Your task to perform on an android device: Show me recent news Image 0: 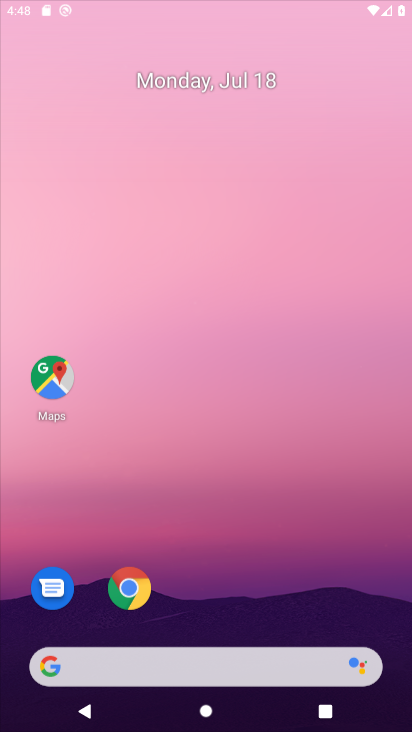
Step 0: press back button
Your task to perform on an android device: Show me recent news Image 1: 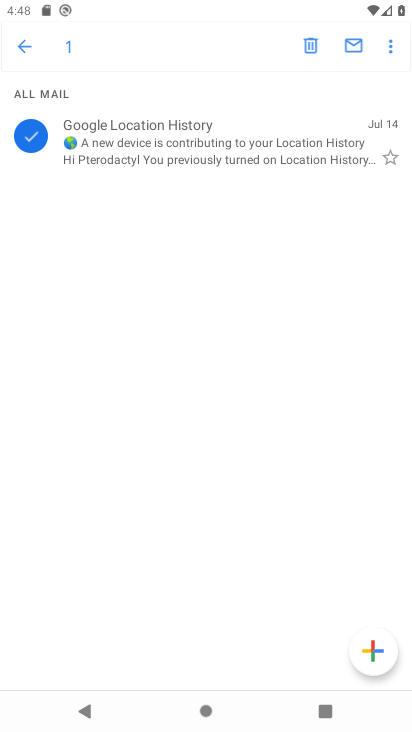
Step 1: press home button
Your task to perform on an android device: Show me recent news Image 2: 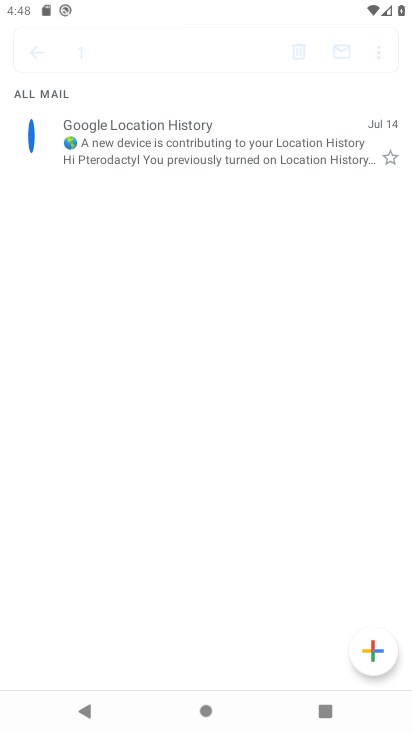
Step 2: drag from (243, 173) to (246, 134)
Your task to perform on an android device: Show me recent news Image 3: 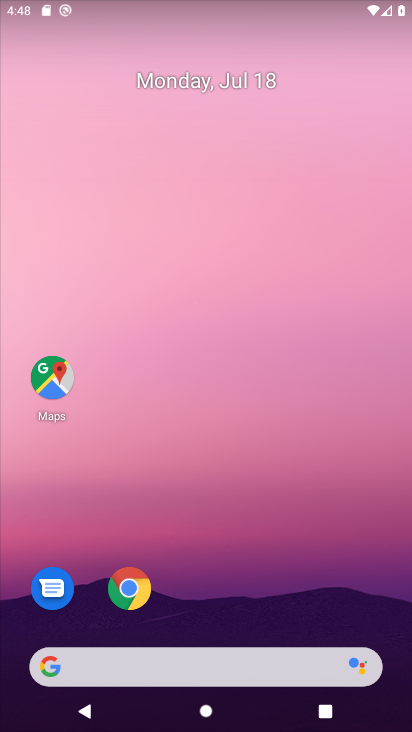
Step 3: drag from (212, 628) to (174, 222)
Your task to perform on an android device: Show me recent news Image 4: 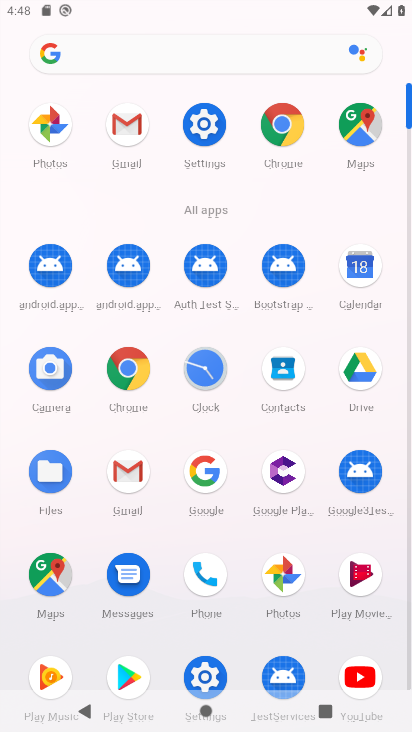
Step 4: click (280, 117)
Your task to perform on an android device: Show me recent news Image 5: 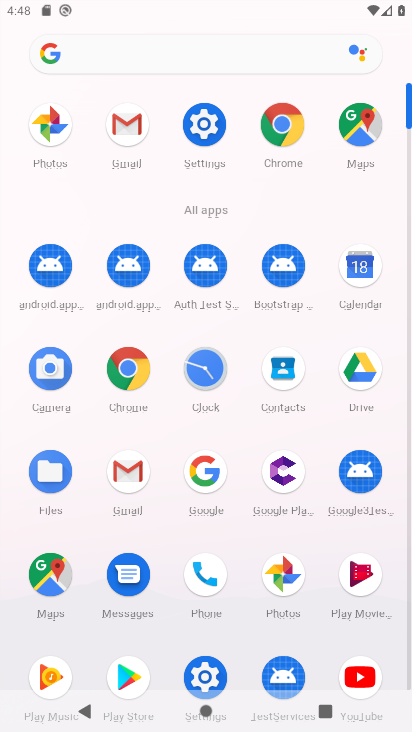
Step 5: click (285, 127)
Your task to perform on an android device: Show me recent news Image 6: 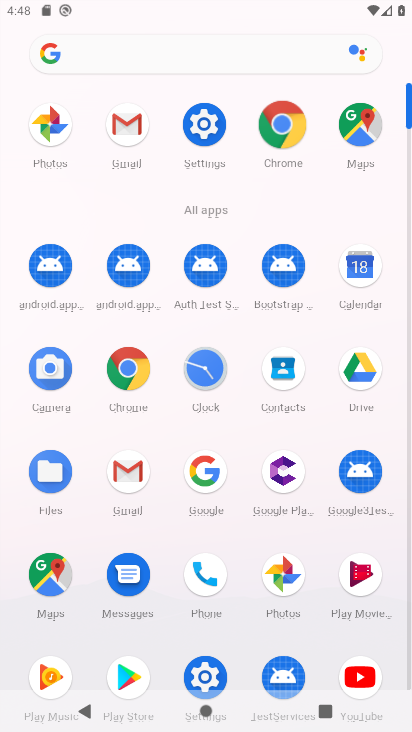
Step 6: click (286, 127)
Your task to perform on an android device: Show me recent news Image 7: 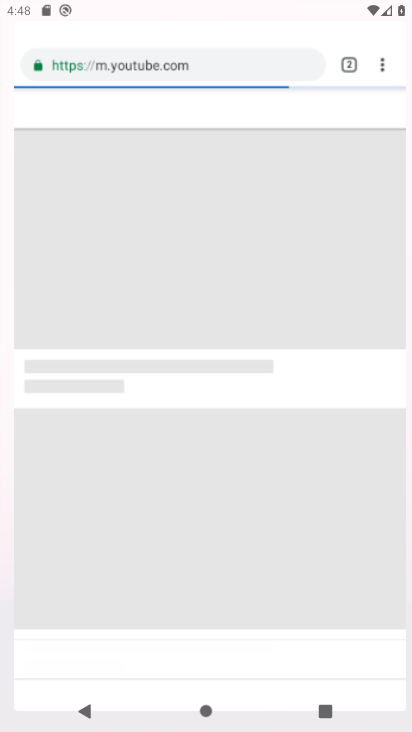
Step 7: click (286, 127)
Your task to perform on an android device: Show me recent news Image 8: 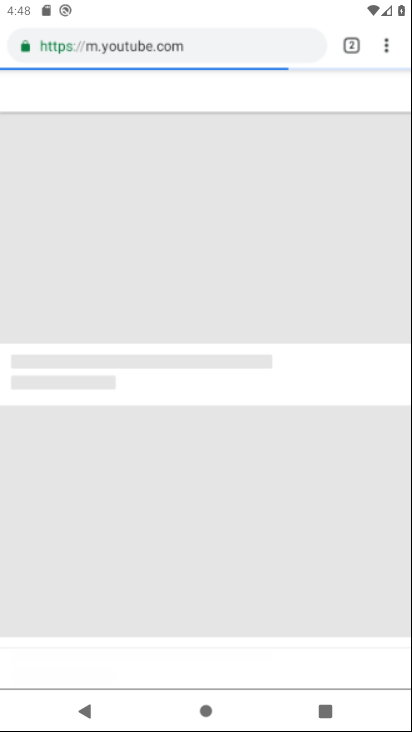
Step 8: drag from (220, 340) to (220, 155)
Your task to perform on an android device: Show me recent news Image 9: 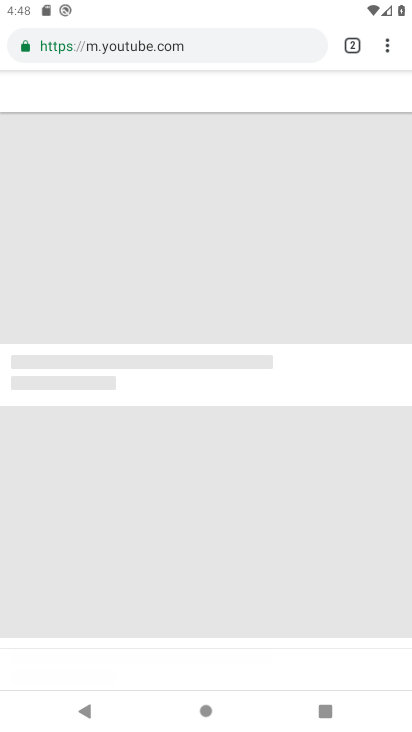
Step 9: drag from (281, 587) to (322, 274)
Your task to perform on an android device: Show me recent news Image 10: 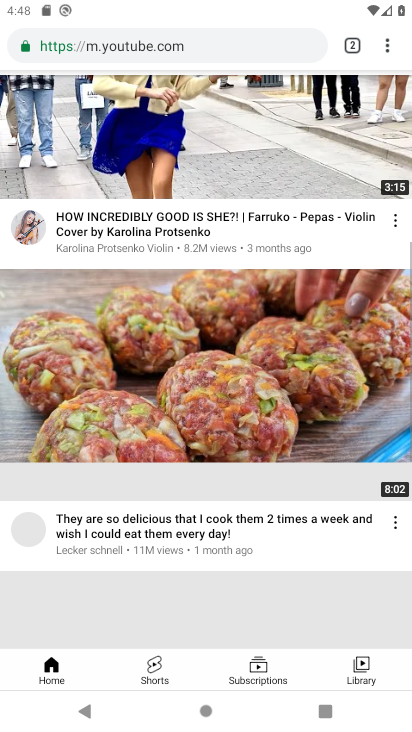
Step 10: drag from (388, 46) to (236, 142)
Your task to perform on an android device: Show me recent news Image 11: 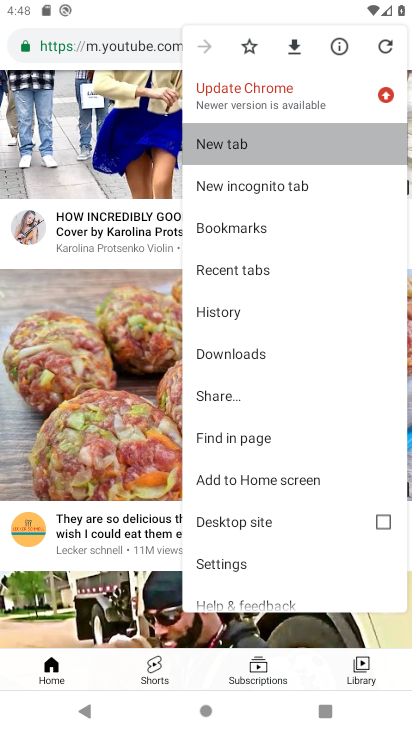
Step 11: click (236, 142)
Your task to perform on an android device: Show me recent news Image 12: 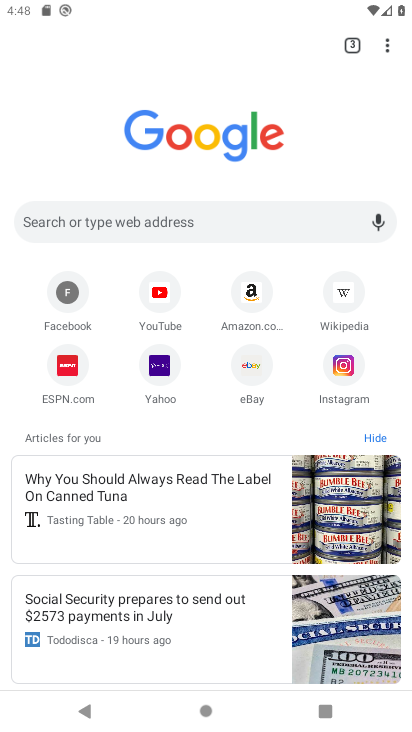
Step 12: task complete